Your task to perform on an android device: see sites visited before in the chrome app Image 0: 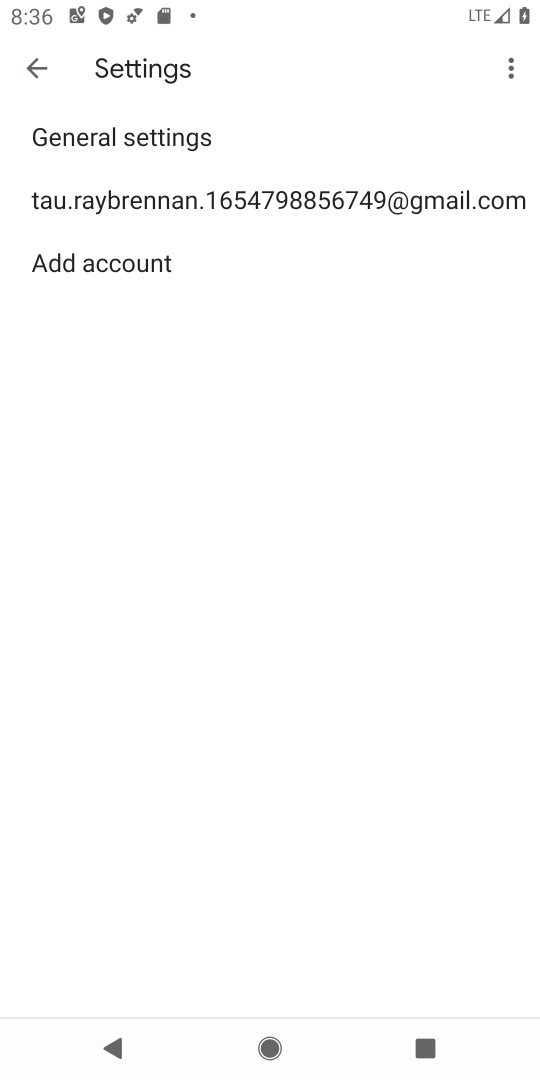
Step 0: press home button
Your task to perform on an android device: see sites visited before in the chrome app Image 1: 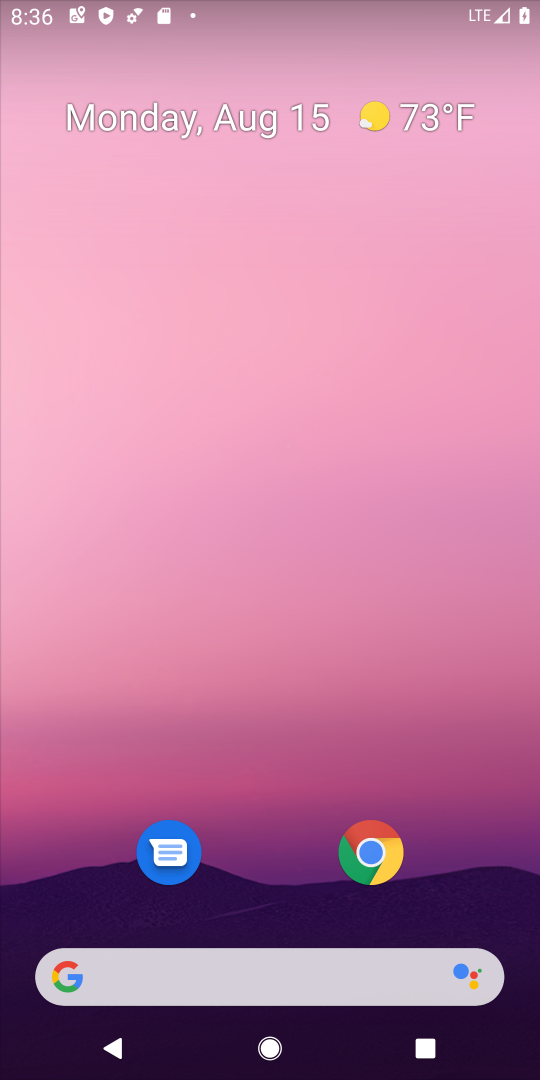
Step 1: click (370, 854)
Your task to perform on an android device: see sites visited before in the chrome app Image 2: 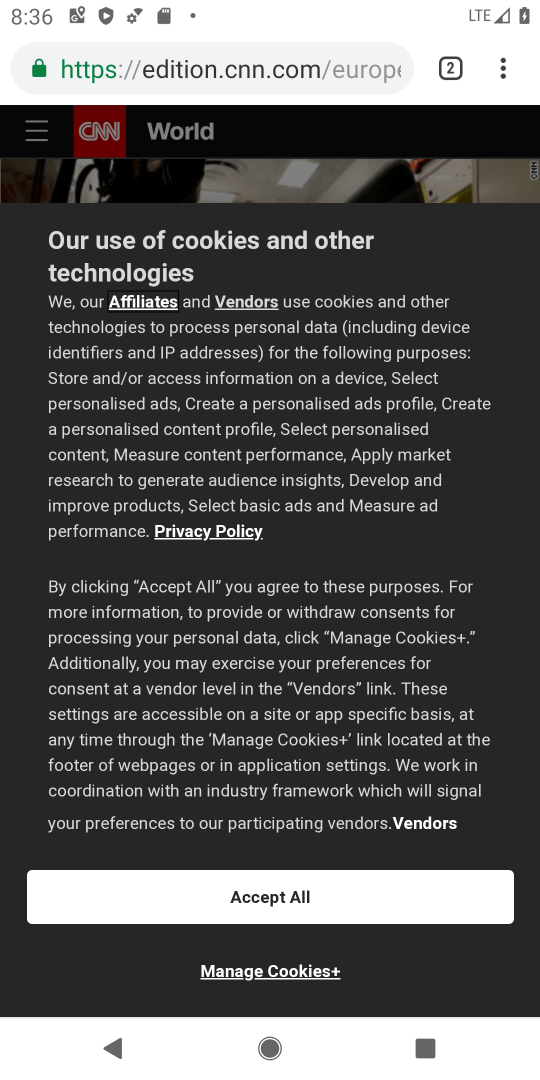
Step 2: click (513, 73)
Your task to perform on an android device: see sites visited before in the chrome app Image 3: 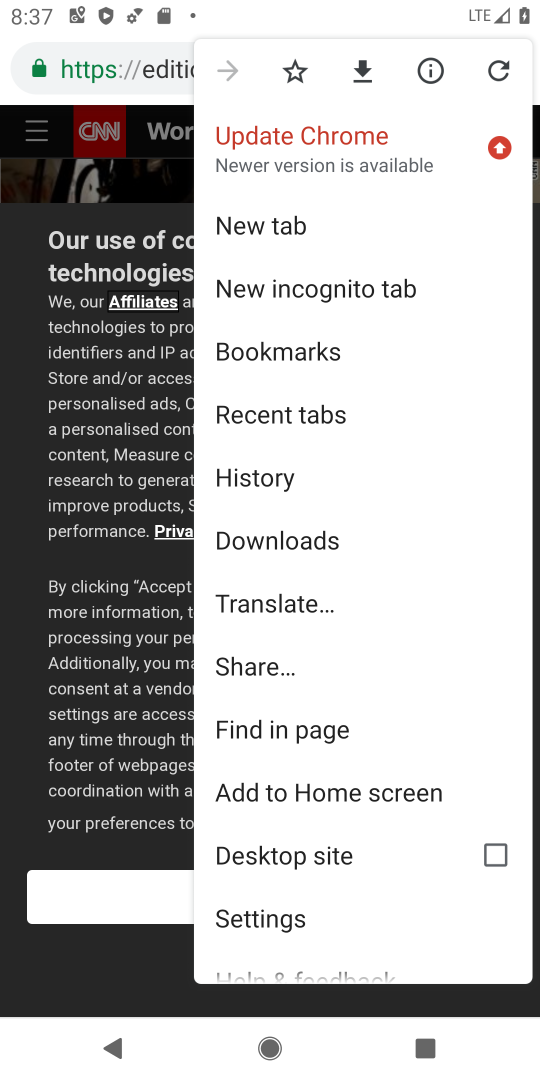
Step 3: click (280, 476)
Your task to perform on an android device: see sites visited before in the chrome app Image 4: 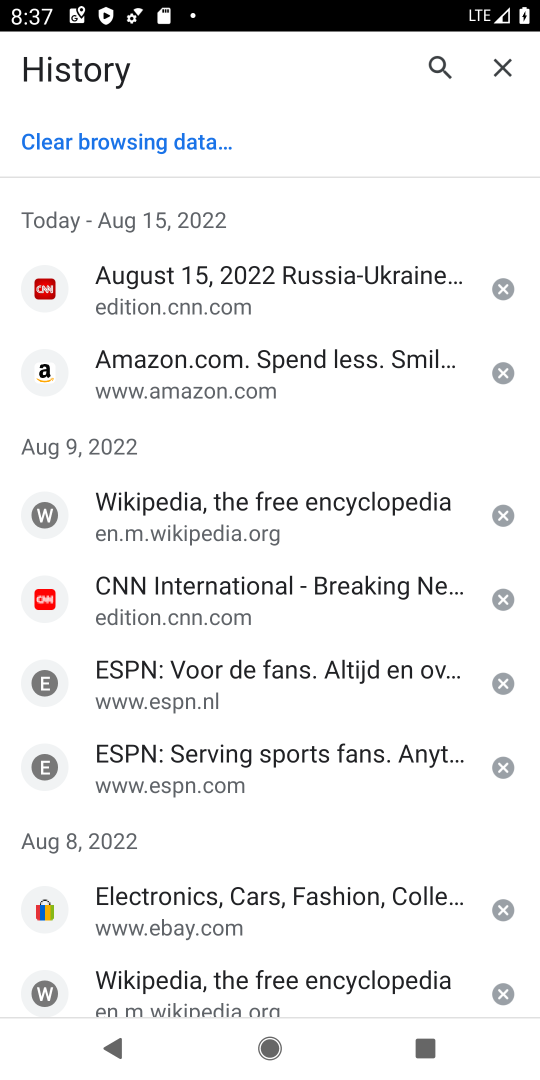
Step 4: task complete